Your task to perform on an android device: Open Google Image 0: 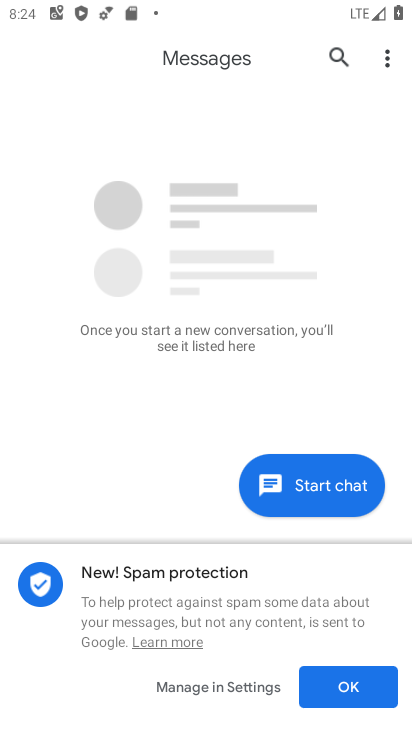
Step 0: press back button
Your task to perform on an android device: Open Google Image 1: 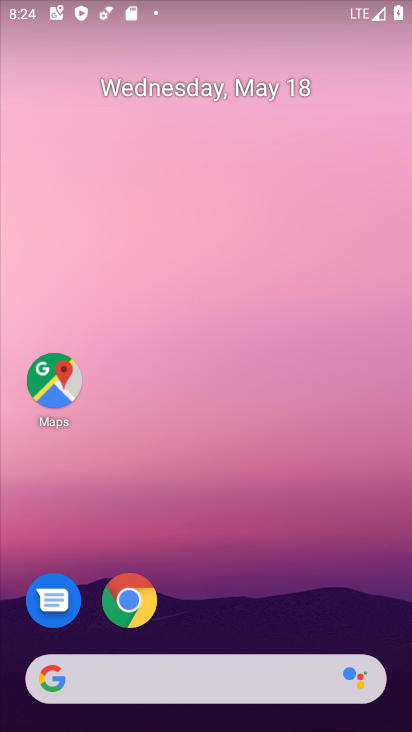
Step 1: drag from (253, 618) to (325, 18)
Your task to perform on an android device: Open Google Image 2: 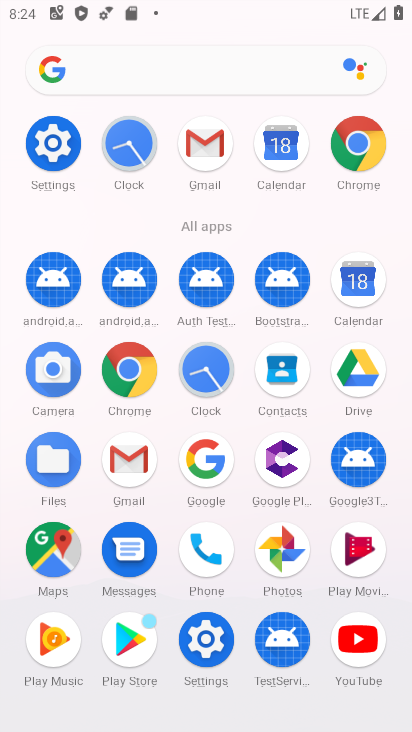
Step 2: click (210, 460)
Your task to perform on an android device: Open Google Image 3: 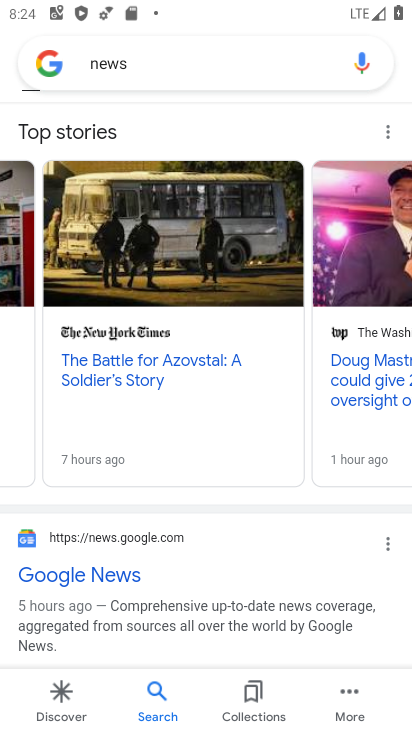
Step 3: task complete